Your task to perform on an android device: visit the assistant section in the google photos Image 0: 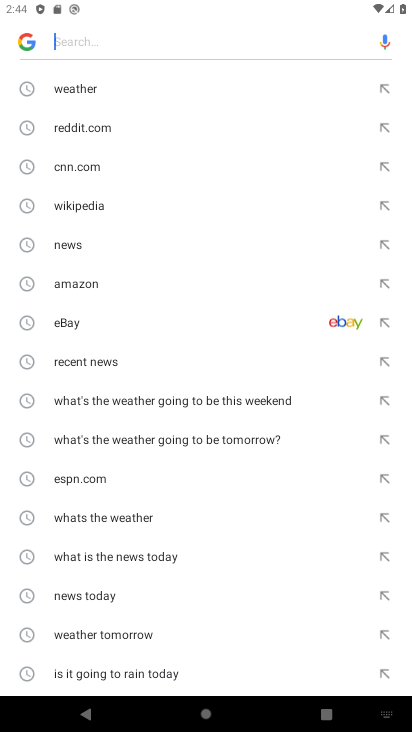
Step 0: press home button
Your task to perform on an android device: visit the assistant section in the google photos Image 1: 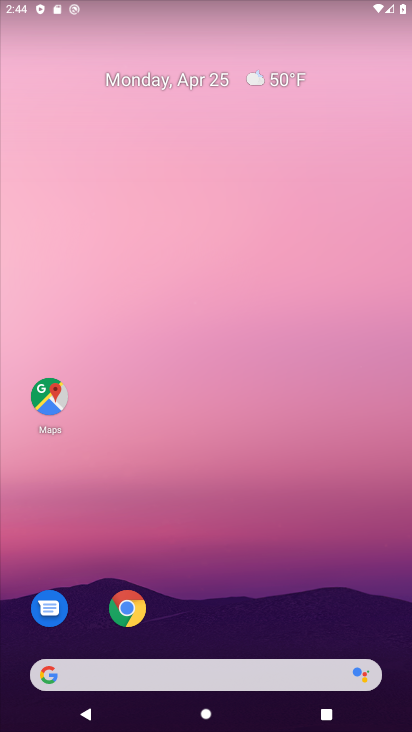
Step 1: drag from (205, 603) to (188, 197)
Your task to perform on an android device: visit the assistant section in the google photos Image 2: 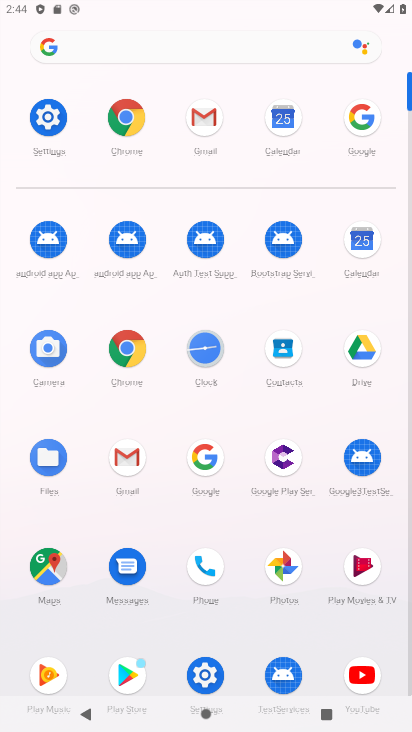
Step 2: click (285, 574)
Your task to perform on an android device: visit the assistant section in the google photos Image 3: 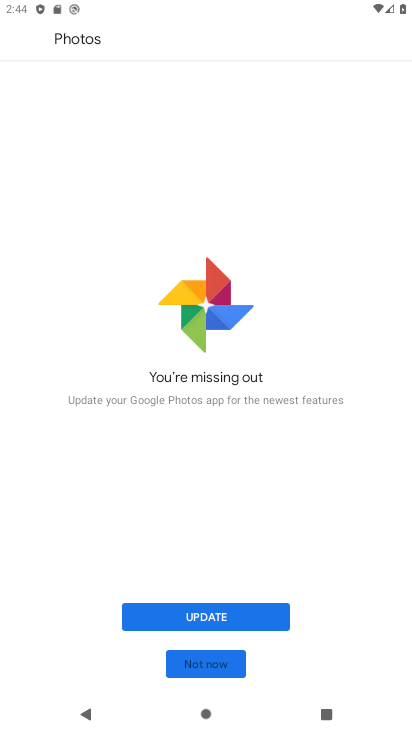
Step 3: click (186, 669)
Your task to perform on an android device: visit the assistant section in the google photos Image 4: 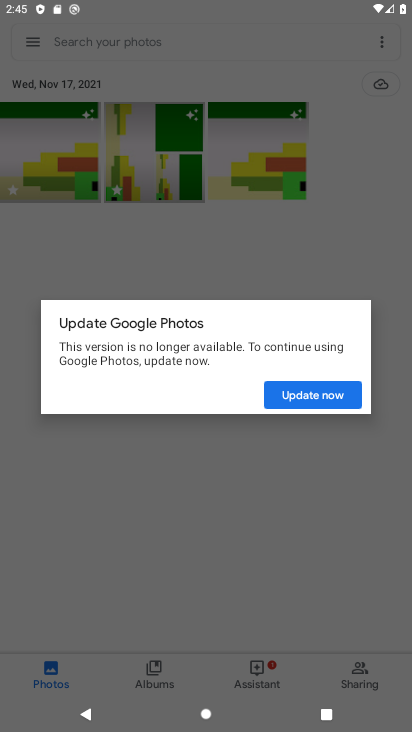
Step 4: click (288, 394)
Your task to perform on an android device: visit the assistant section in the google photos Image 5: 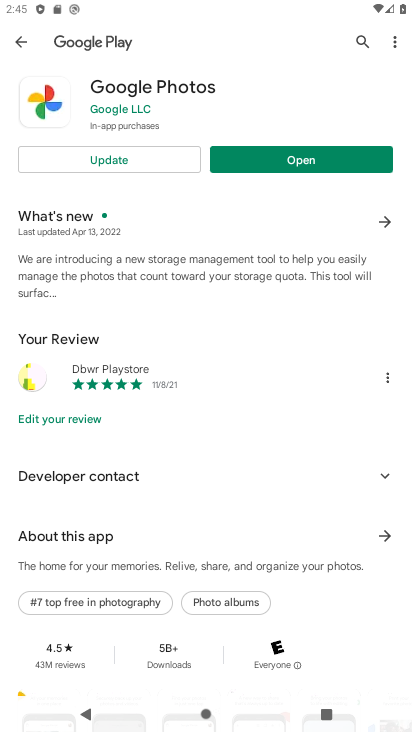
Step 5: click (267, 163)
Your task to perform on an android device: visit the assistant section in the google photos Image 6: 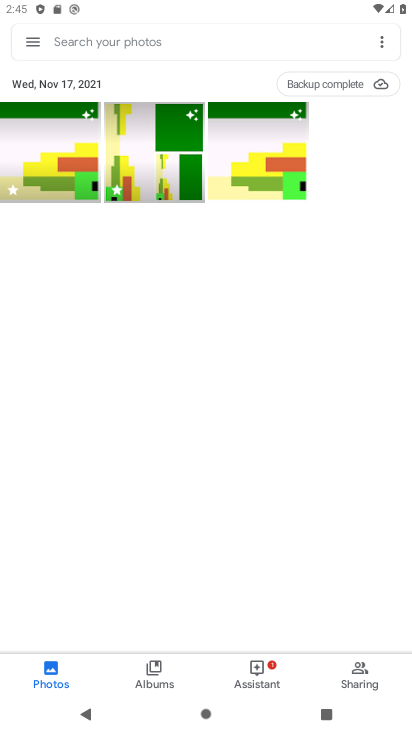
Step 6: click (267, 677)
Your task to perform on an android device: visit the assistant section in the google photos Image 7: 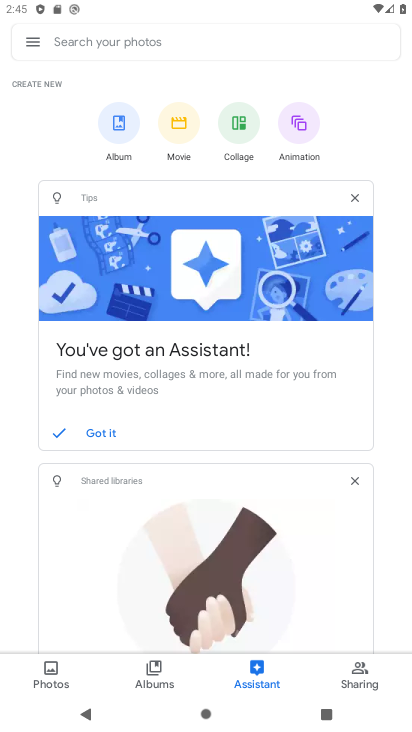
Step 7: task complete